Your task to perform on an android device: Open CNN.com Image 0: 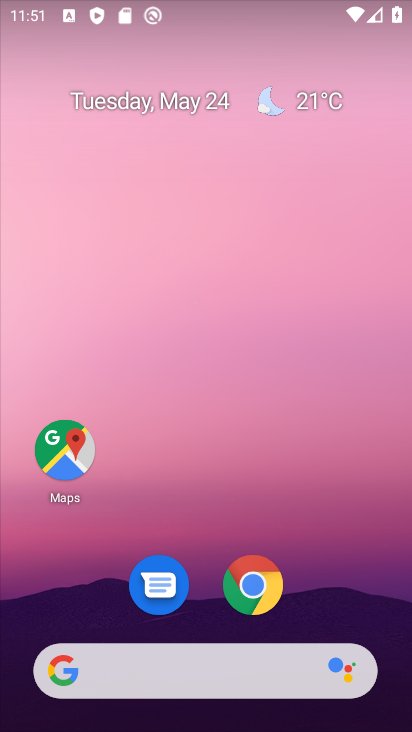
Step 0: click (191, 686)
Your task to perform on an android device: Open CNN.com Image 1: 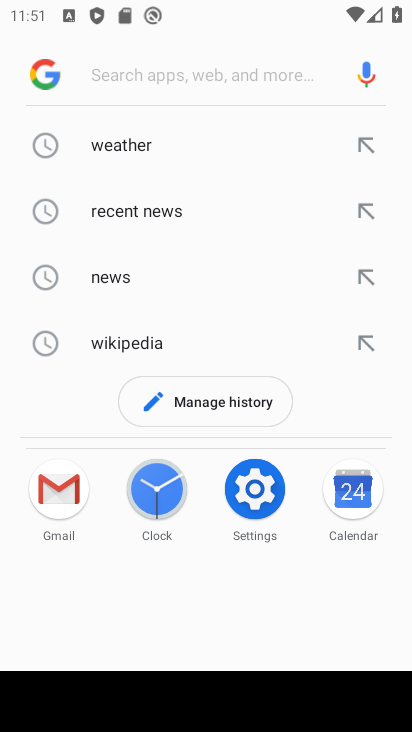
Step 1: type "cnn.com"
Your task to perform on an android device: Open CNN.com Image 2: 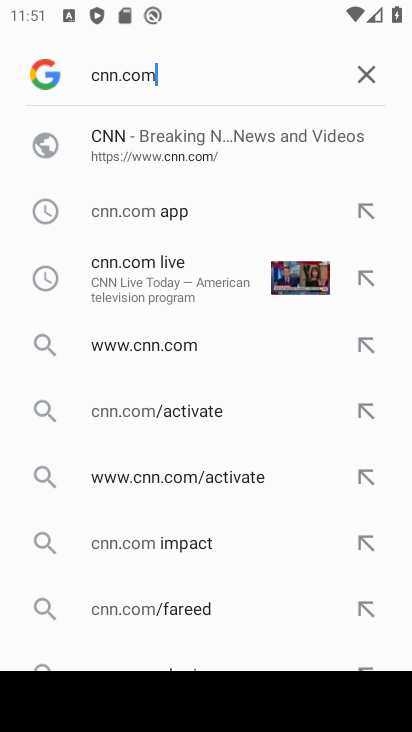
Step 2: click (112, 144)
Your task to perform on an android device: Open CNN.com Image 3: 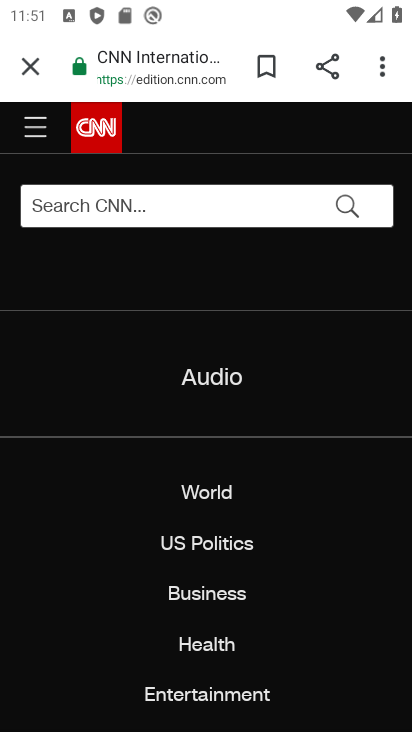
Step 3: task complete